Your task to perform on an android device: toggle improve location accuracy Image 0: 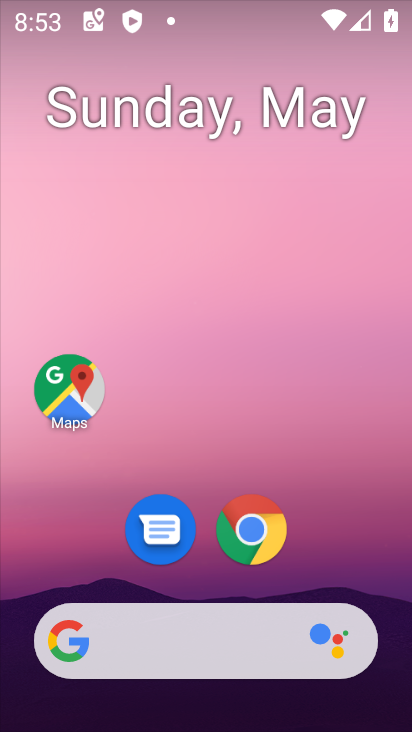
Step 0: type "reeddit"
Your task to perform on an android device: toggle improve location accuracy Image 1: 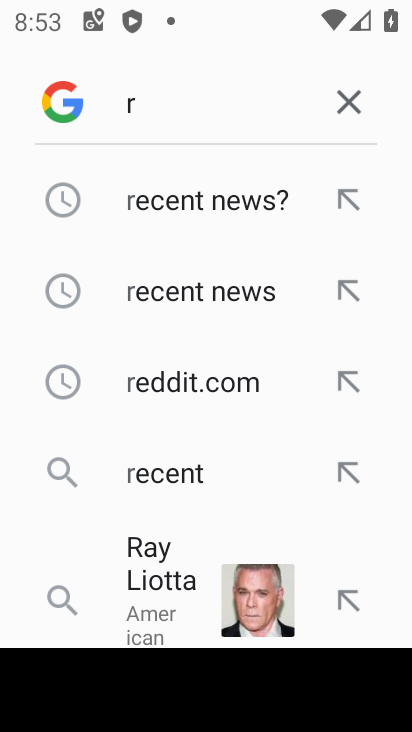
Step 1: click (187, 411)
Your task to perform on an android device: toggle improve location accuracy Image 2: 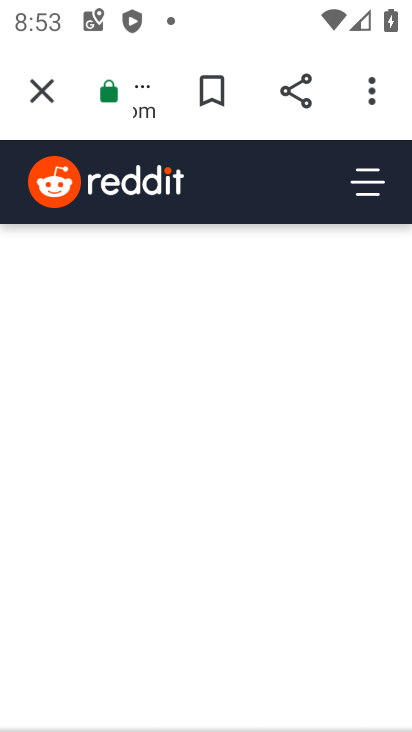
Step 2: task complete